Your task to perform on an android device: Go to Android settings Image 0: 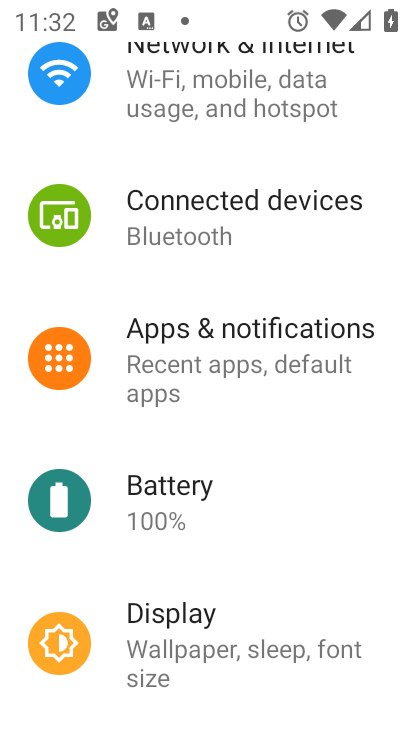
Step 0: press home button
Your task to perform on an android device: Go to Android settings Image 1: 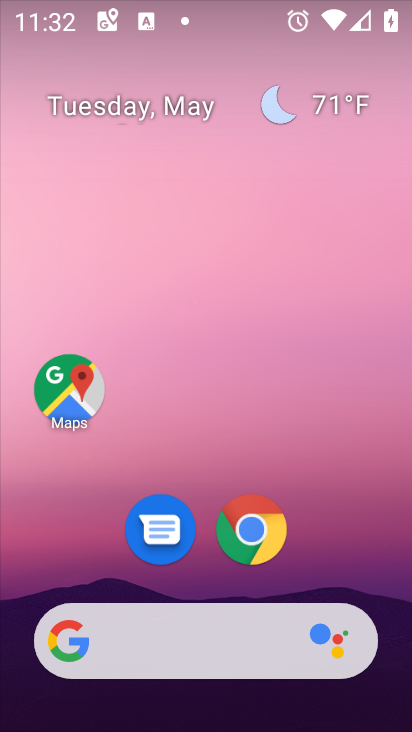
Step 1: drag from (218, 655) to (198, 209)
Your task to perform on an android device: Go to Android settings Image 2: 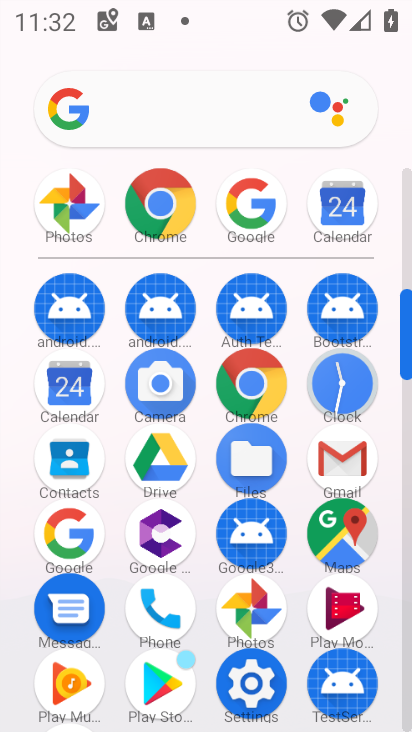
Step 2: click (249, 687)
Your task to perform on an android device: Go to Android settings Image 3: 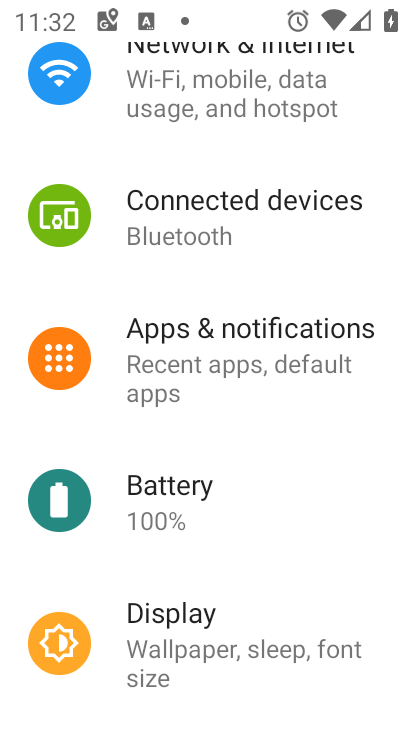
Step 3: drag from (182, 625) to (201, 246)
Your task to perform on an android device: Go to Android settings Image 4: 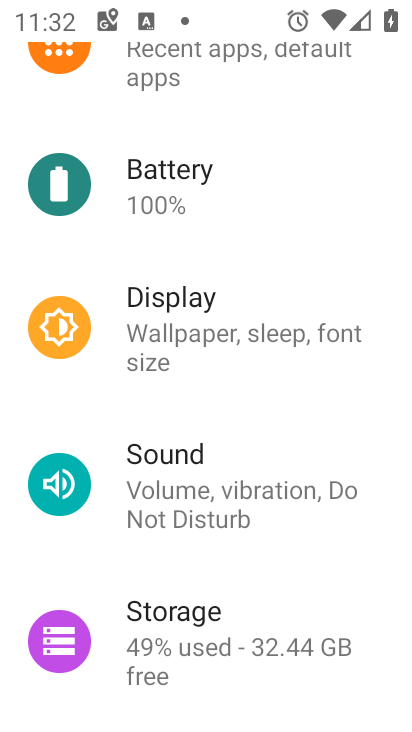
Step 4: drag from (229, 634) to (238, 341)
Your task to perform on an android device: Go to Android settings Image 5: 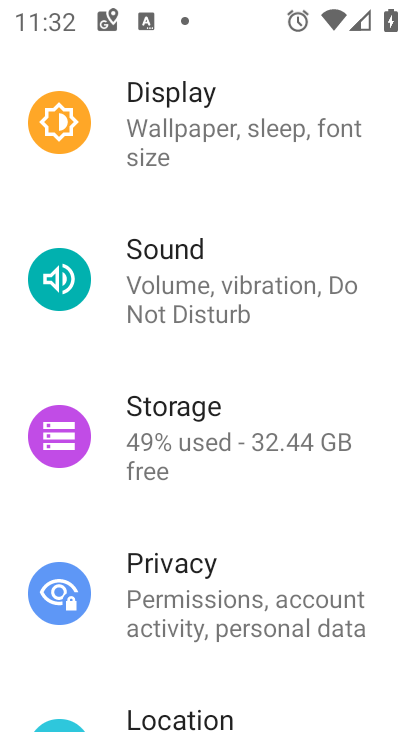
Step 5: drag from (292, 547) to (307, 306)
Your task to perform on an android device: Go to Android settings Image 6: 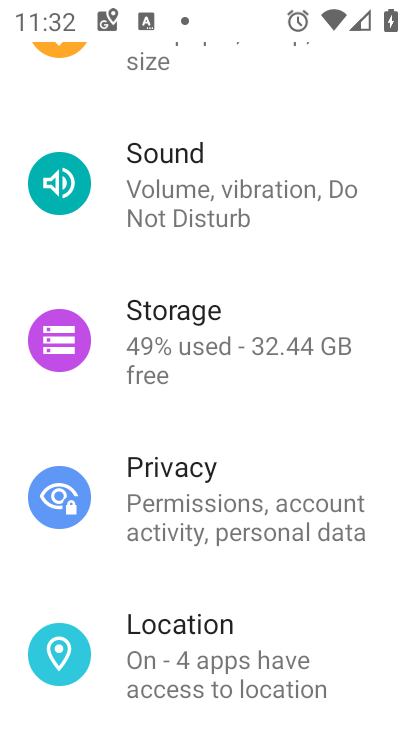
Step 6: drag from (203, 625) to (254, 373)
Your task to perform on an android device: Go to Android settings Image 7: 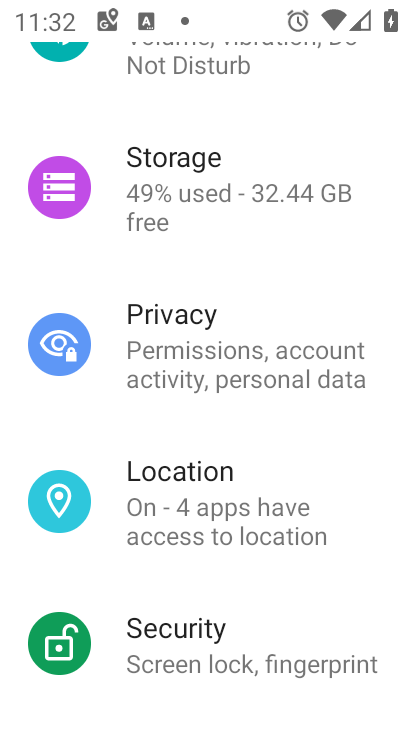
Step 7: drag from (276, 554) to (311, 218)
Your task to perform on an android device: Go to Android settings Image 8: 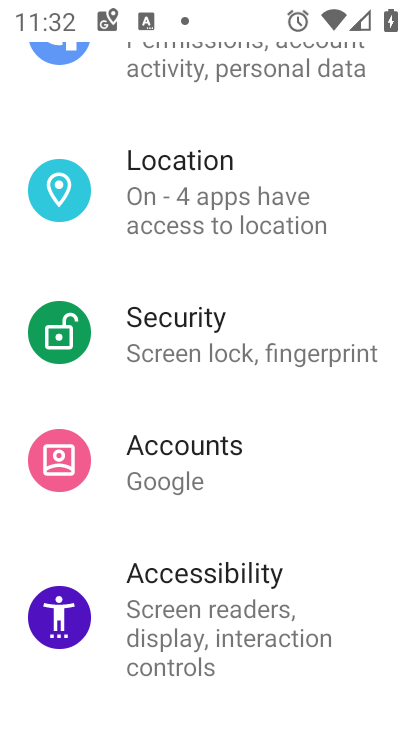
Step 8: drag from (140, 589) to (188, 285)
Your task to perform on an android device: Go to Android settings Image 9: 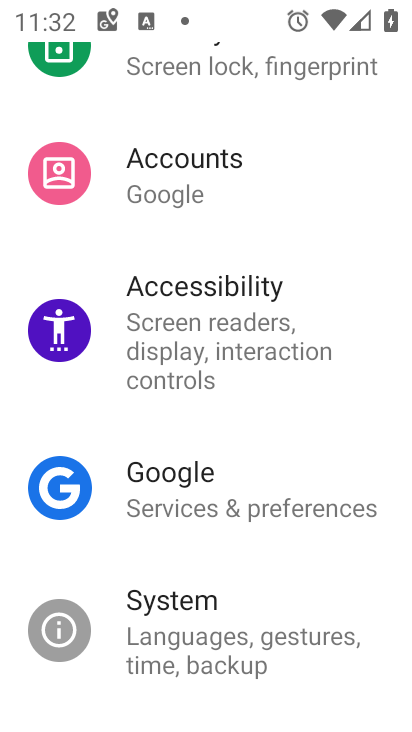
Step 9: drag from (215, 636) to (295, 154)
Your task to perform on an android device: Go to Android settings Image 10: 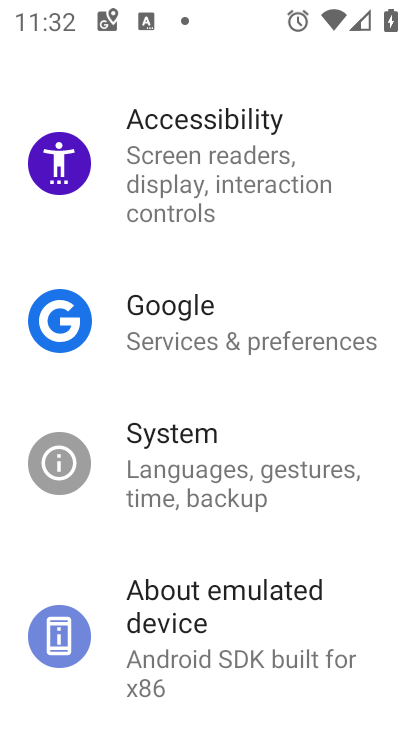
Step 10: drag from (256, 594) to (256, 303)
Your task to perform on an android device: Go to Android settings Image 11: 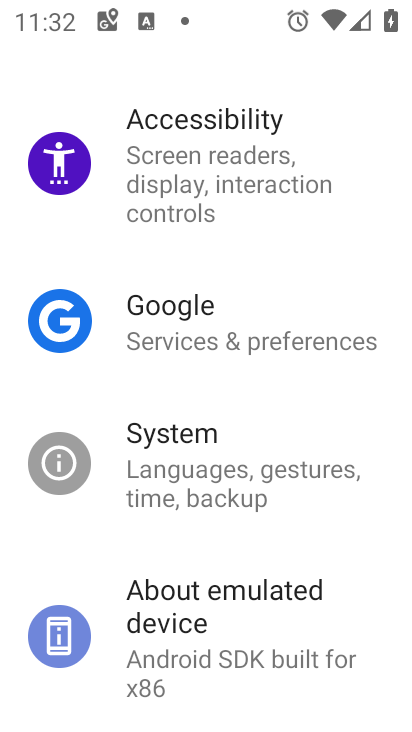
Step 11: click (188, 664)
Your task to perform on an android device: Go to Android settings Image 12: 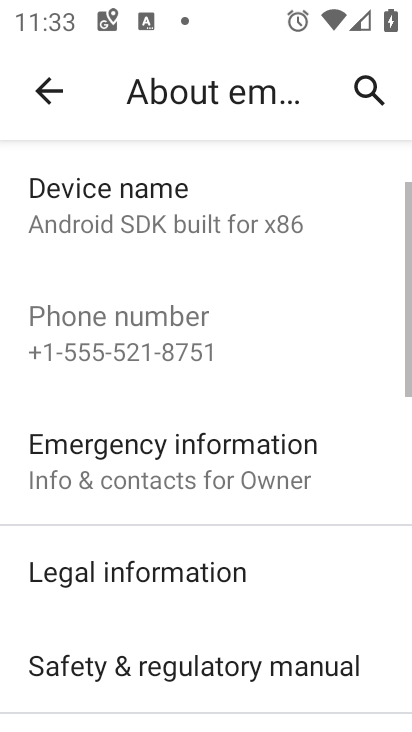
Step 12: drag from (241, 544) to (260, 114)
Your task to perform on an android device: Go to Android settings Image 13: 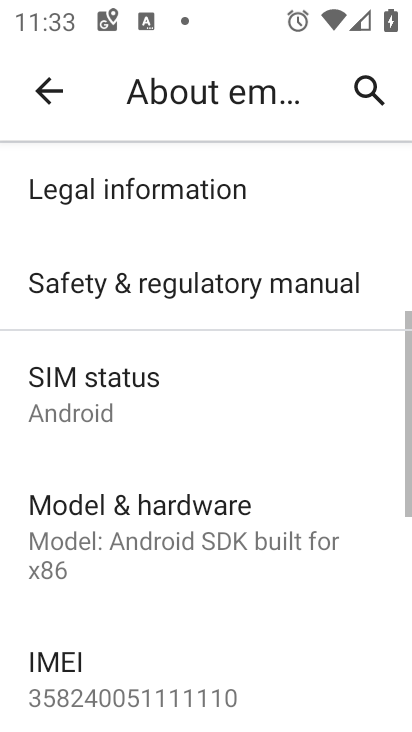
Step 13: drag from (214, 607) to (247, 399)
Your task to perform on an android device: Go to Android settings Image 14: 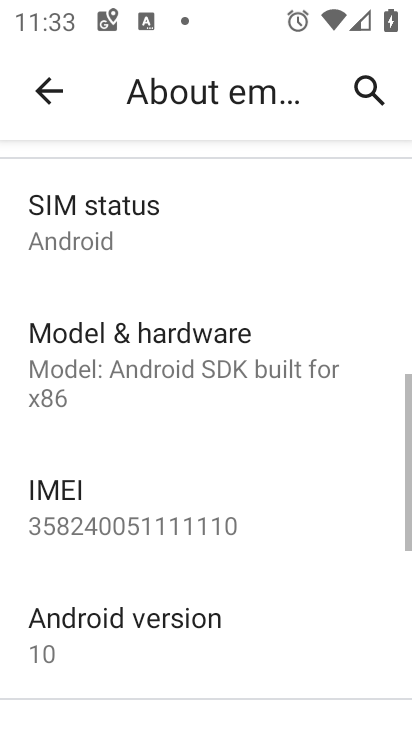
Step 14: click (181, 639)
Your task to perform on an android device: Go to Android settings Image 15: 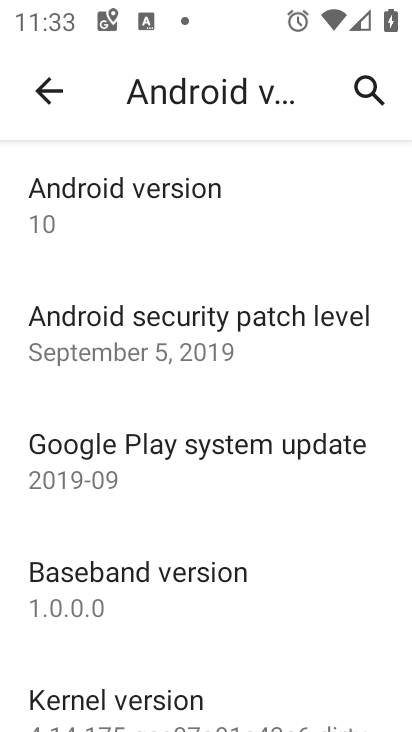
Step 15: click (165, 217)
Your task to perform on an android device: Go to Android settings Image 16: 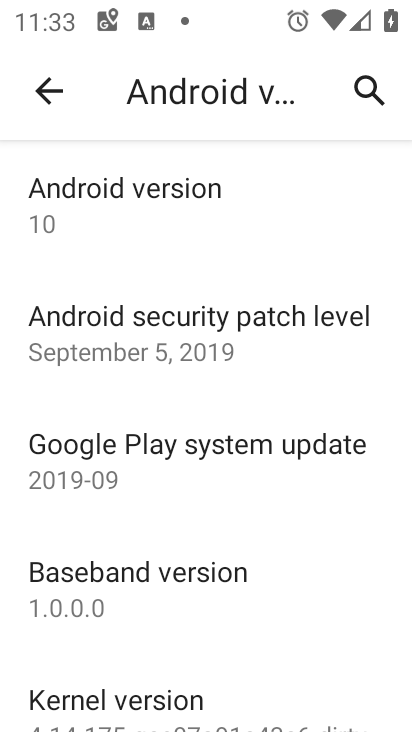
Step 16: click (165, 217)
Your task to perform on an android device: Go to Android settings Image 17: 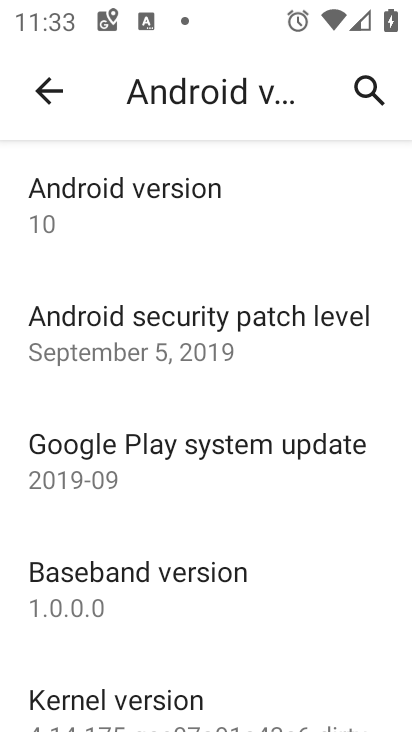
Step 17: task complete